Your task to perform on an android device: turn on improve location accuracy Image 0: 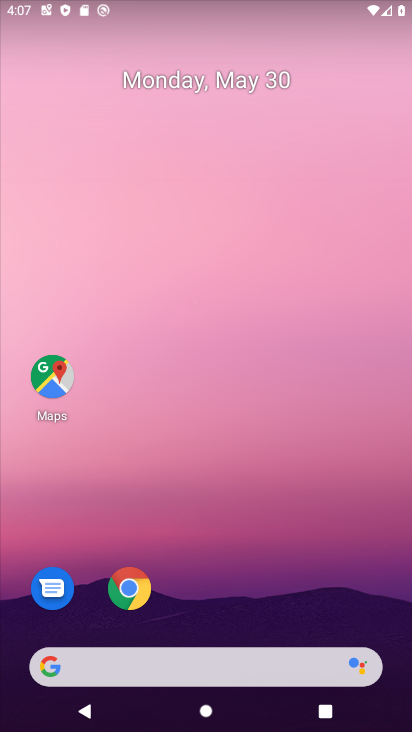
Step 0: press home button
Your task to perform on an android device: turn on improve location accuracy Image 1: 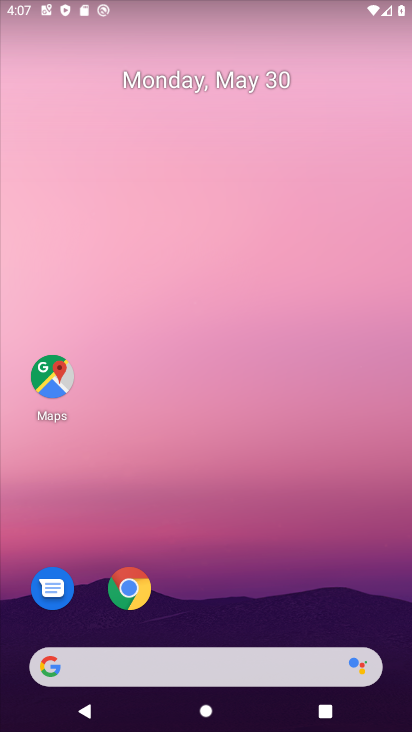
Step 1: drag from (262, 599) to (294, 319)
Your task to perform on an android device: turn on improve location accuracy Image 2: 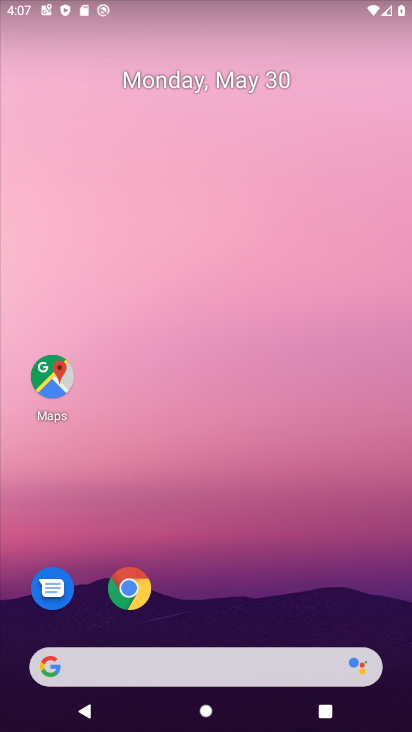
Step 2: drag from (236, 586) to (242, 223)
Your task to perform on an android device: turn on improve location accuracy Image 3: 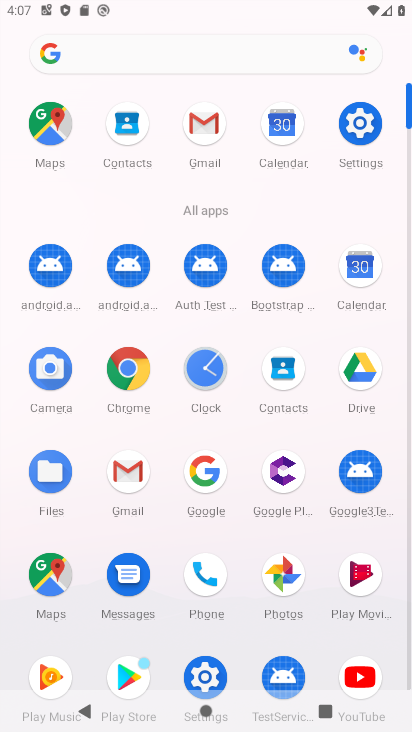
Step 3: click (357, 123)
Your task to perform on an android device: turn on improve location accuracy Image 4: 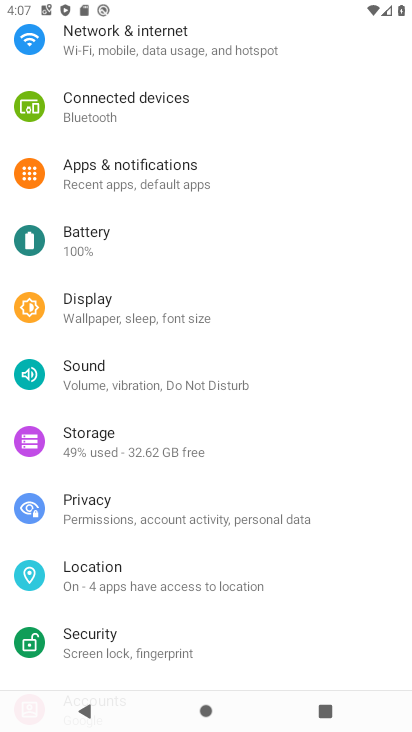
Step 4: click (77, 570)
Your task to perform on an android device: turn on improve location accuracy Image 5: 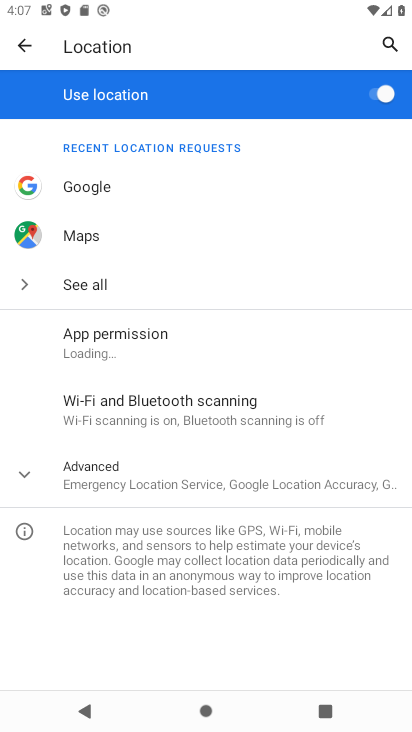
Step 5: click (15, 476)
Your task to perform on an android device: turn on improve location accuracy Image 6: 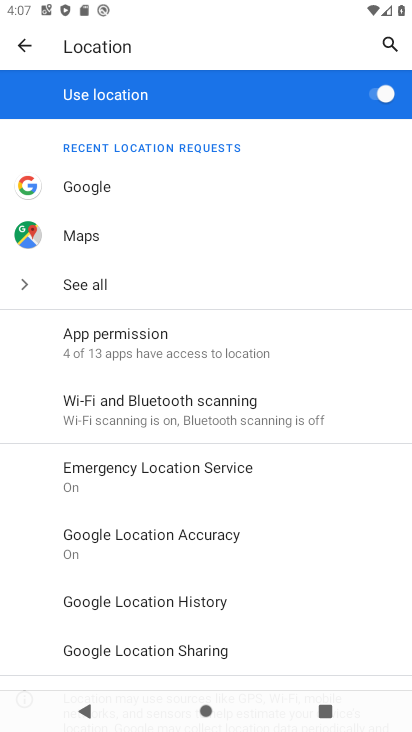
Step 6: click (144, 534)
Your task to perform on an android device: turn on improve location accuracy Image 7: 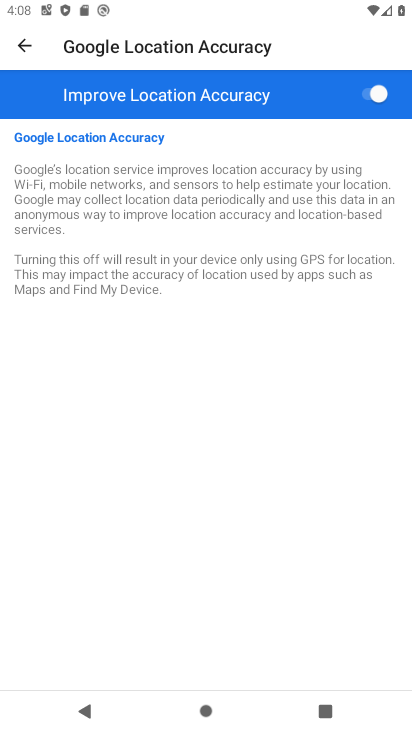
Step 7: task complete